Your task to perform on an android device: Open settings on Google Maps Image 0: 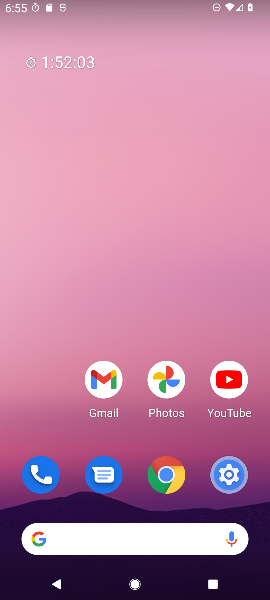
Step 0: press home button
Your task to perform on an android device: Open settings on Google Maps Image 1: 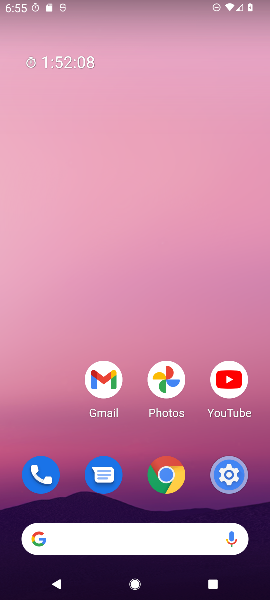
Step 1: drag from (61, 426) to (65, 139)
Your task to perform on an android device: Open settings on Google Maps Image 2: 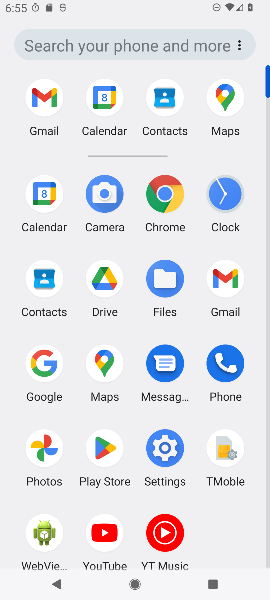
Step 2: click (104, 360)
Your task to perform on an android device: Open settings on Google Maps Image 3: 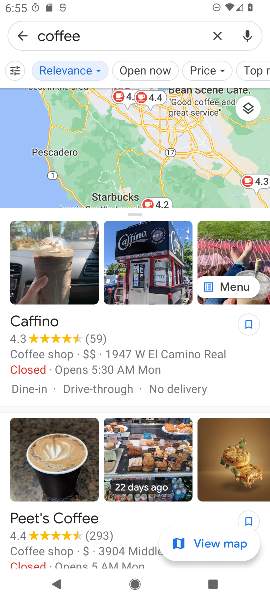
Step 3: press back button
Your task to perform on an android device: Open settings on Google Maps Image 4: 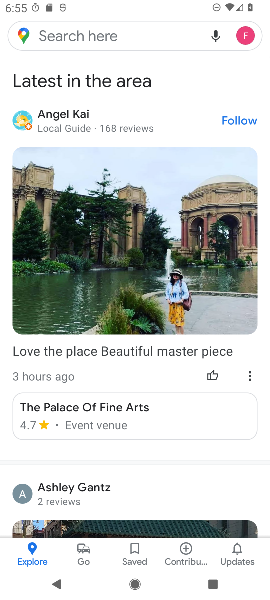
Step 4: click (248, 36)
Your task to perform on an android device: Open settings on Google Maps Image 5: 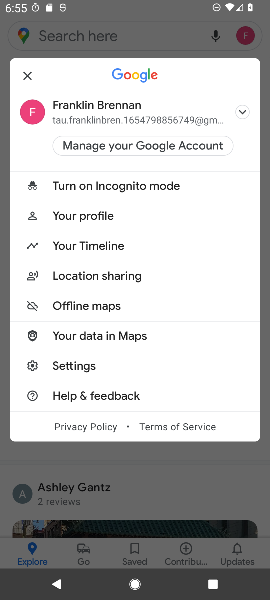
Step 5: click (88, 367)
Your task to perform on an android device: Open settings on Google Maps Image 6: 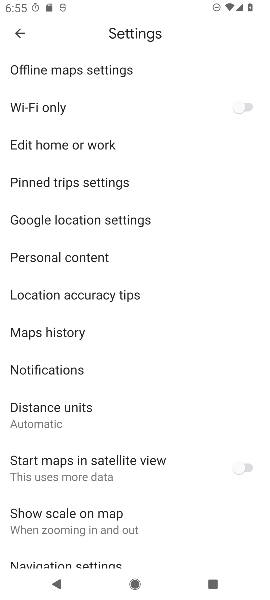
Step 6: task complete